Your task to perform on an android device: Open display settings Image 0: 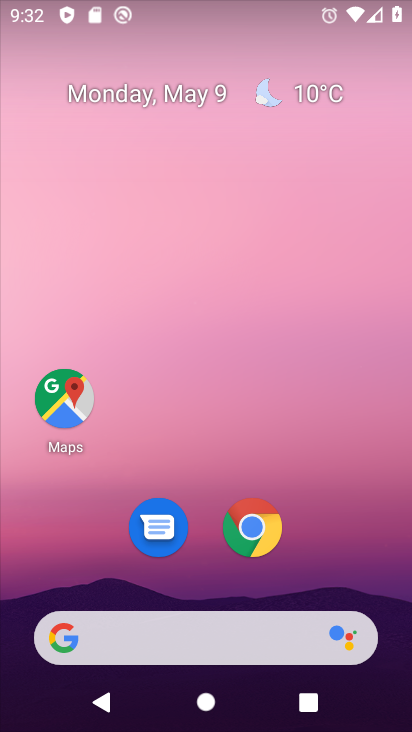
Step 0: drag from (388, 641) to (325, 96)
Your task to perform on an android device: Open display settings Image 1: 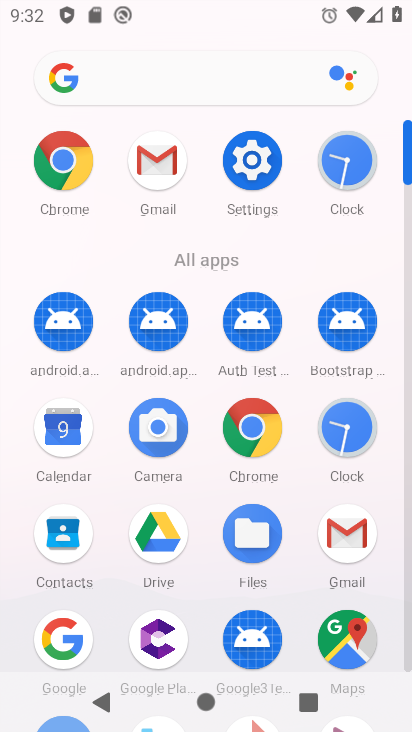
Step 1: click (408, 657)
Your task to perform on an android device: Open display settings Image 2: 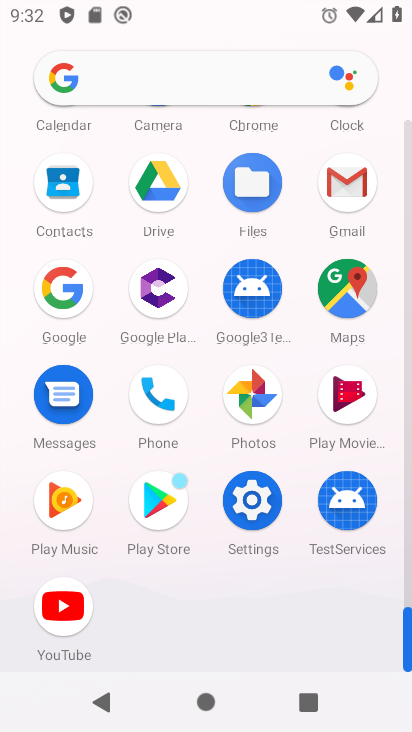
Step 2: click (250, 495)
Your task to perform on an android device: Open display settings Image 3: 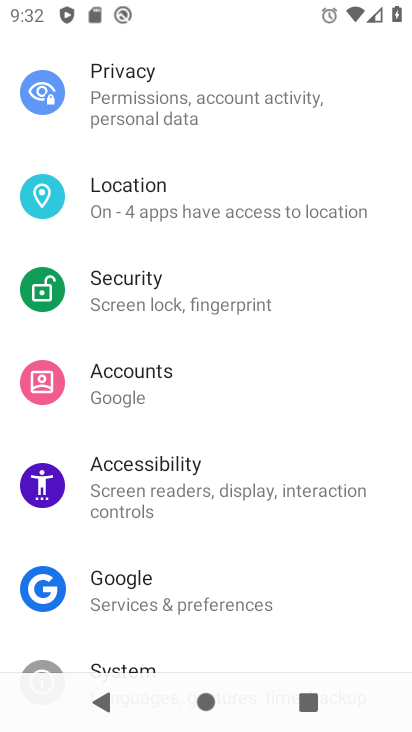
Step 3: drag from (335, 165) to (289, 510)
Your task to perform on an android device: Open display settings Image 4: 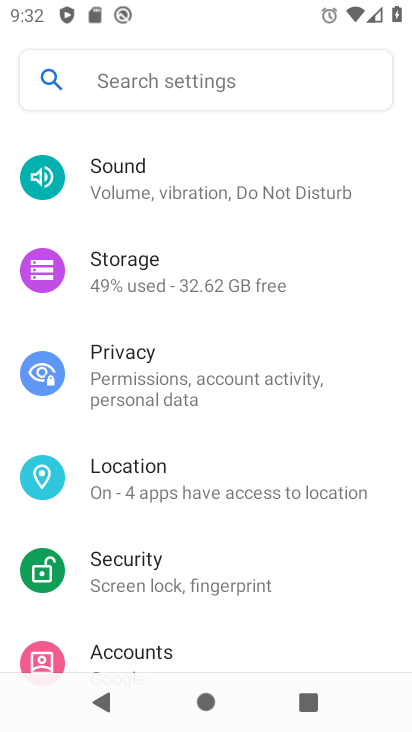
Step 4: drag from (257, 248) to (262, 582)
Your task to perform on an android device: Open display settings Image 5: 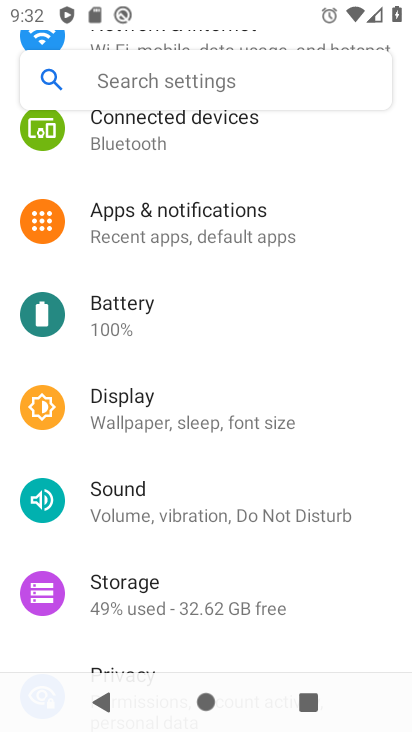
Step 5: click (95, 407)
Your task to perform on an android device: Open display settings Image 6: 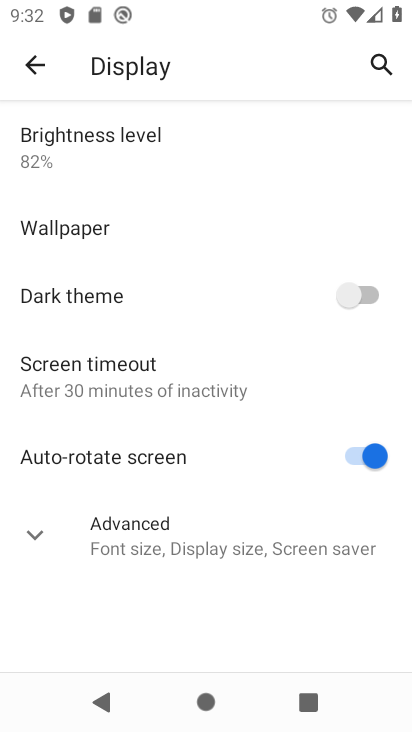
Step 6: click (40, 538)
Your task to perform on an android device: Open display settings Image 7: 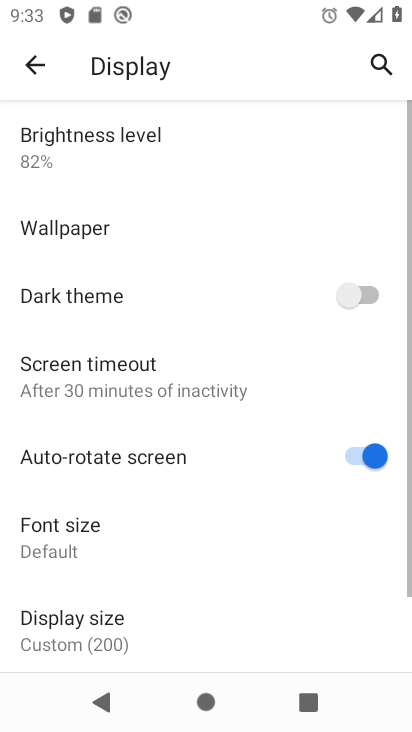
Step 7: task complete